Your task to perform on an android device: turn off smart reply in the gmail app Image 0: 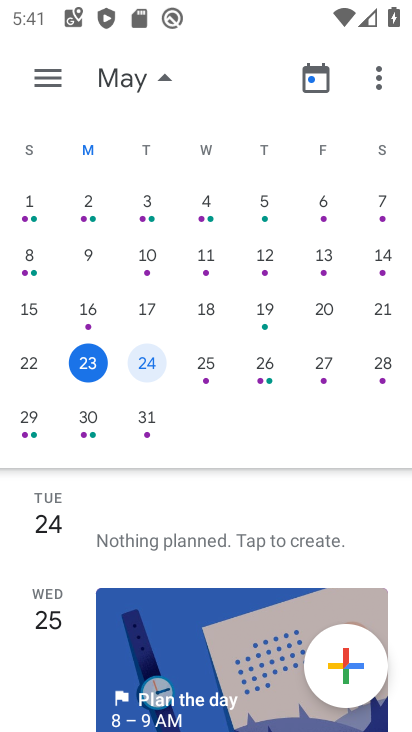
Step 0: press home button
Your task to perform on an android device: turn off smart reply in the gmail app Image 1: 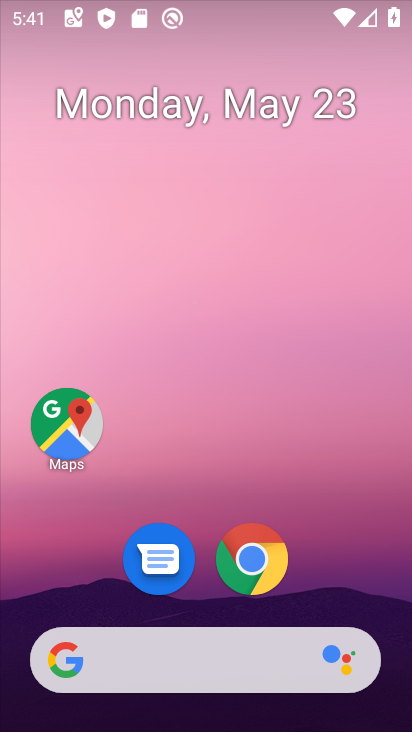
Step 1: drag from (236, 575) to (281, 19)
Your task to perform on an android device: turn off smart reply in the gmail app Image 2: 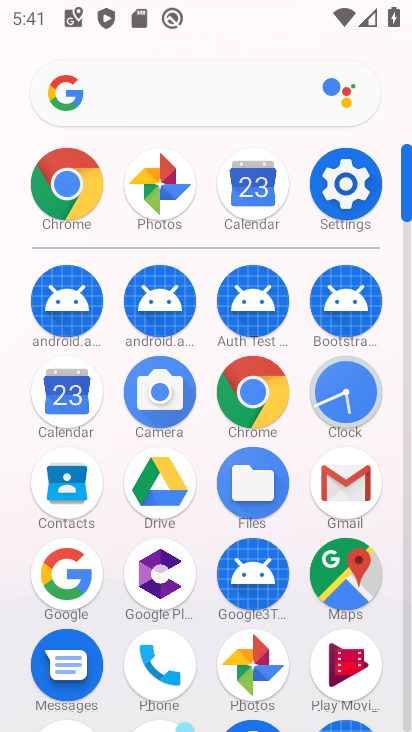
Step 2: click (357, 476)
Your task to perform on an android device: turn off smart reply in the gmail app Image 3: 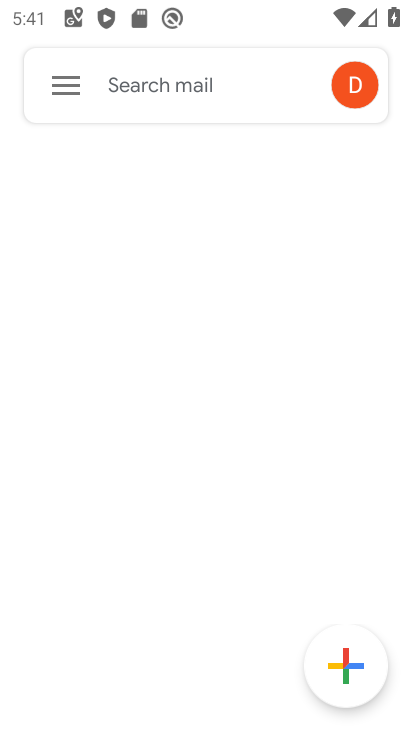
Step 3: click (64, 85)
Your task to perform on an android device: turn off smart reply in the gmail app Image 4: 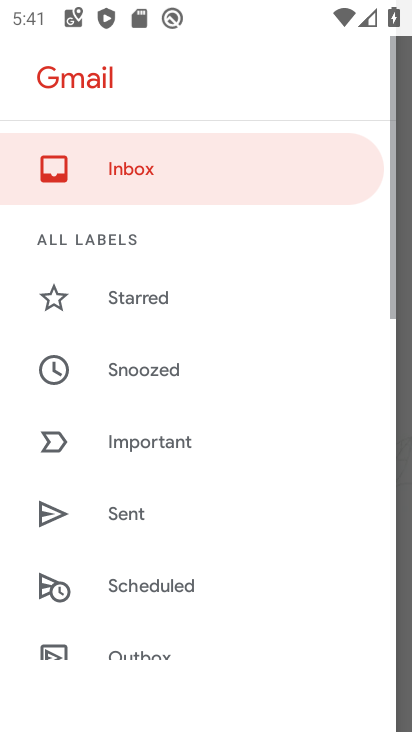
Step 4: drag from (153, 614) to (142, 52)
Your task to perform on an android device: turn off smart reply in the gmail app Image 5: 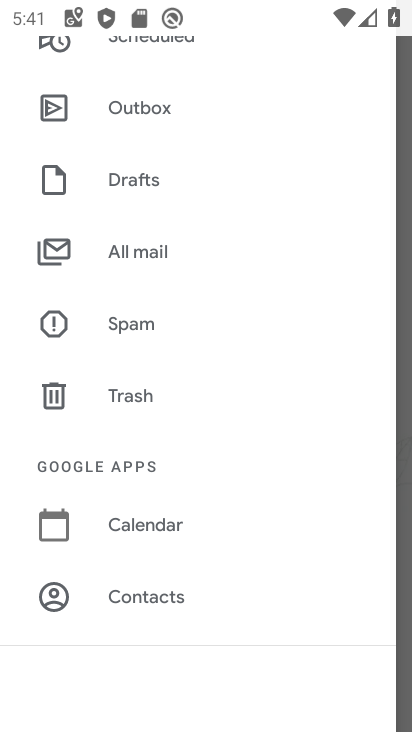
Step 5: drag from (199, 572) to (216, 114)
Your task to perform on an android device: turn off smart reply in the gmail app Image 6: 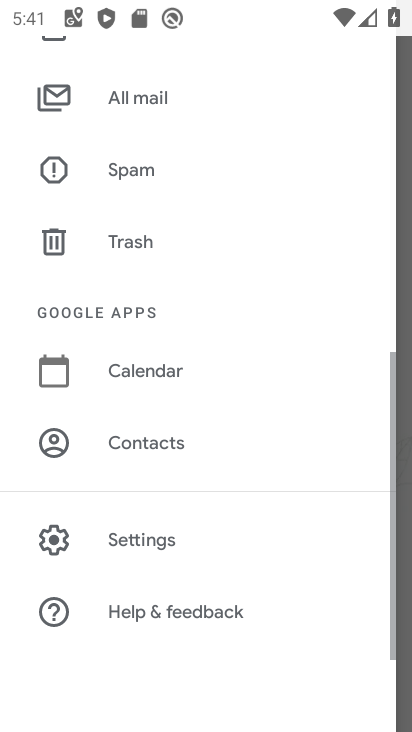
Step 6: click (163, 542)
Your task to perform on an android device: turn off smart reply in the gmail app Image 7: 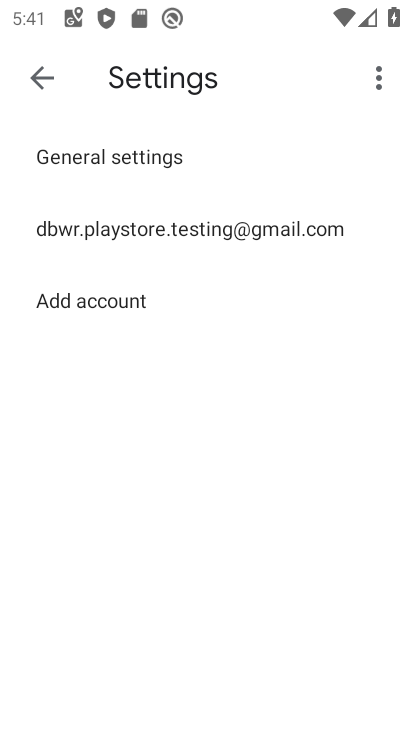
Step 7: click (267, 240)
Your task to perform on an android device: turn off smart reply in the gmail app Image 8: 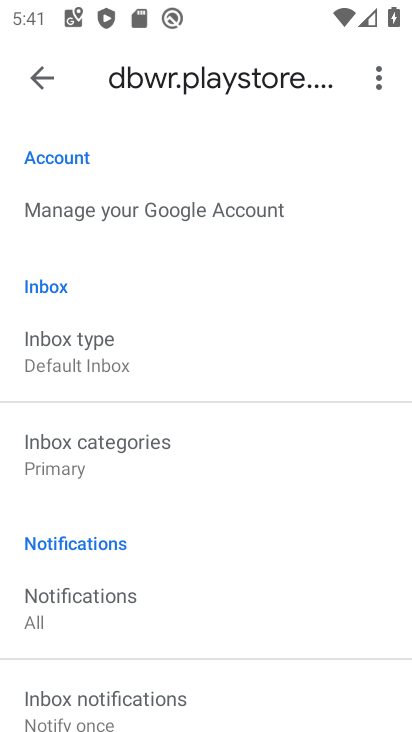
Step 8: task complete